Your task to perform on an android device: manage bookmarks in the chrome app Image 0: 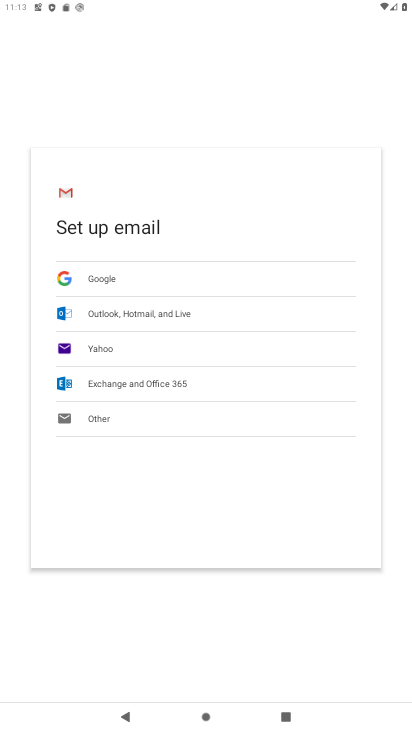
Step 0: press home button
Your task to perform on an android device: manage bookmarks in the chrome app Image 1: 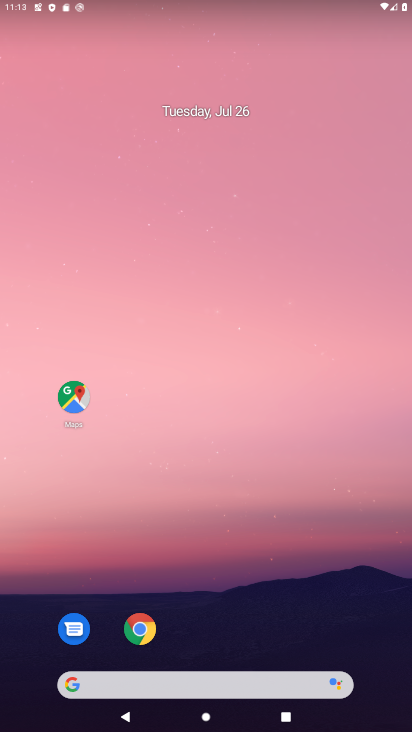
Step 1: click (152, 634)
Your task to perform on an android device: manage bookmarks in the chrome app Image 2: 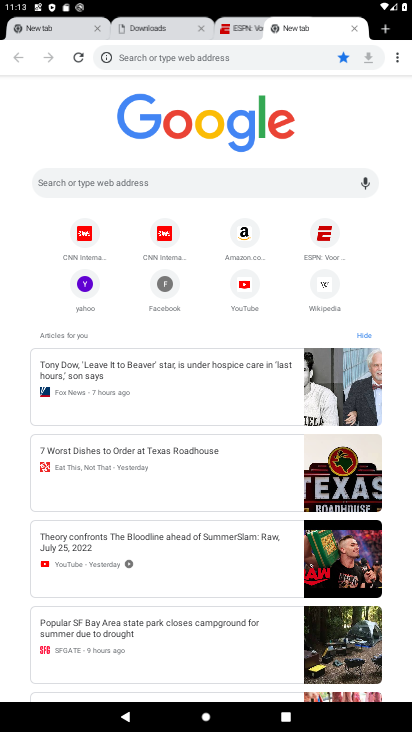
Step 2: click (399, 55)
Your task to perform on an android device: manage bookmarks in the chrome app Image 3: 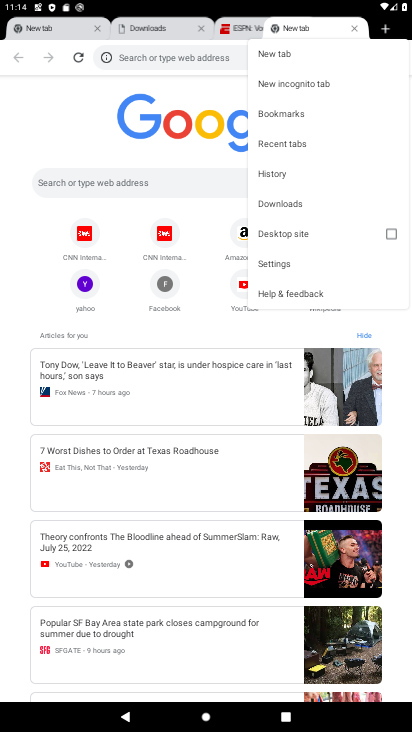
Step 3: click (290, 122)
Your task to perform on an android device: manage bookmarks in the chrome app Image 4: 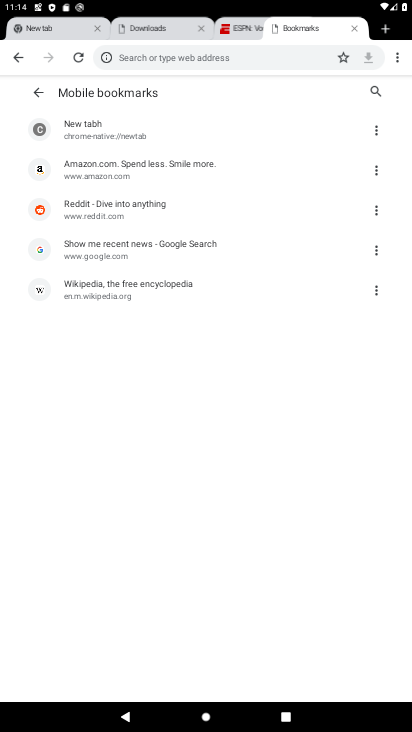
Step 4: task complete